Your task to perform on an android device: Turn on the flashlight Image 0: 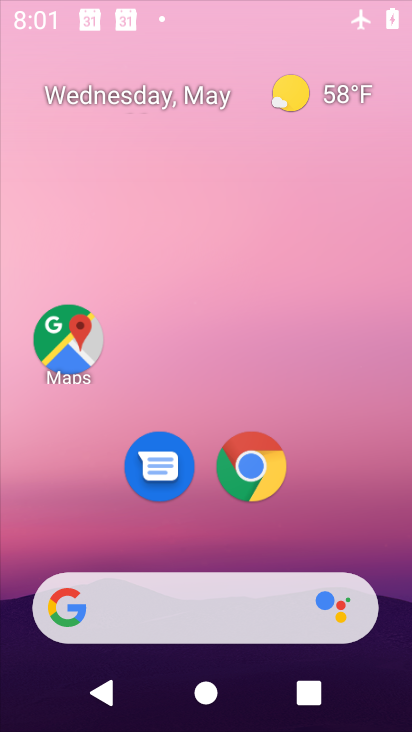
Step 0: press home button
Your task to perform on an android device: Turn on the flashlight Image 1: 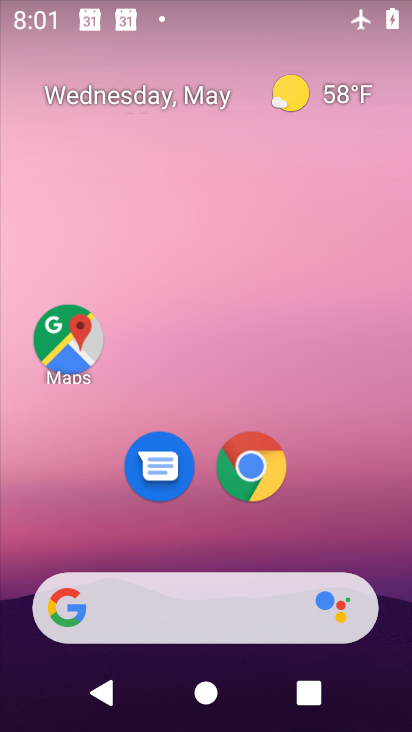
Step 1: drag from (197, 526) to (271, 28)
Your task to perform on an android device: Turn on the flashlight Image 2: 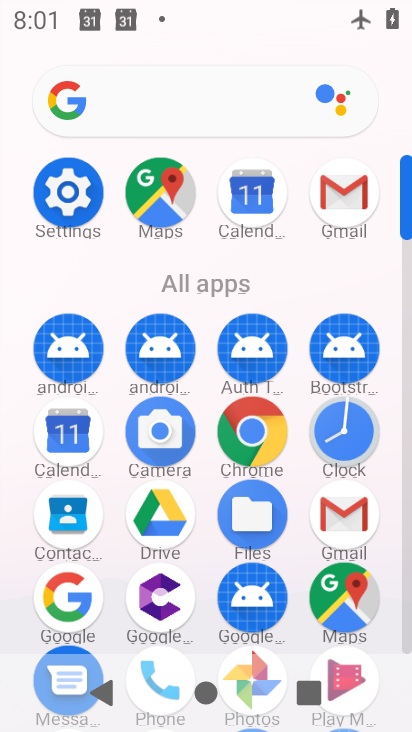
Step 2: click (67, 187)
Your task to perform on an android device: Turn on the flashlight Image 3: 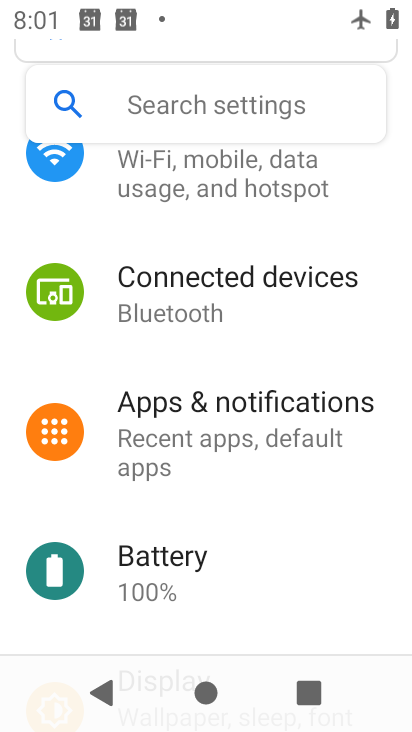
Step 3: click (189, 89)
Your task to perform on an android device: Turn on the flashlight Image 4: 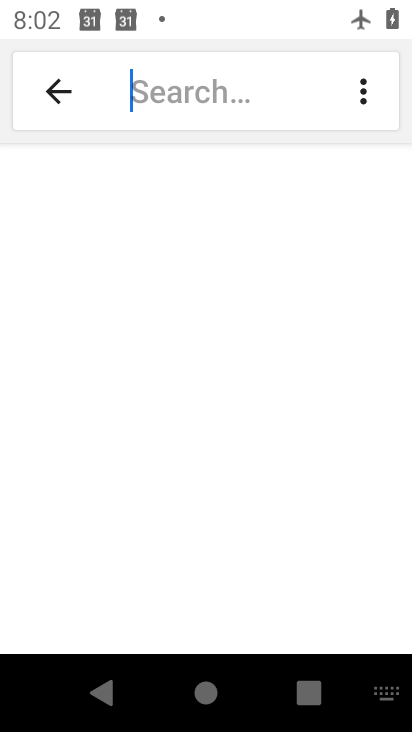
Step 4: type "flashlight"
Your task to perform on an android device: Turn on the flashlight Image 5: 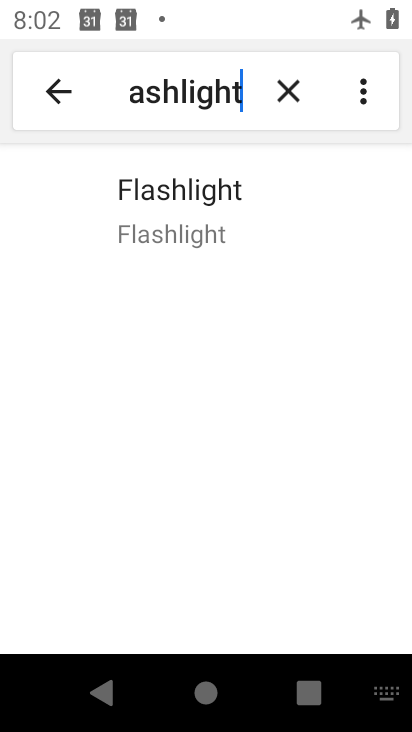
Step 5: click (174, 209)
Your task to perform on an android device: Turn on the flashlight Image 6: 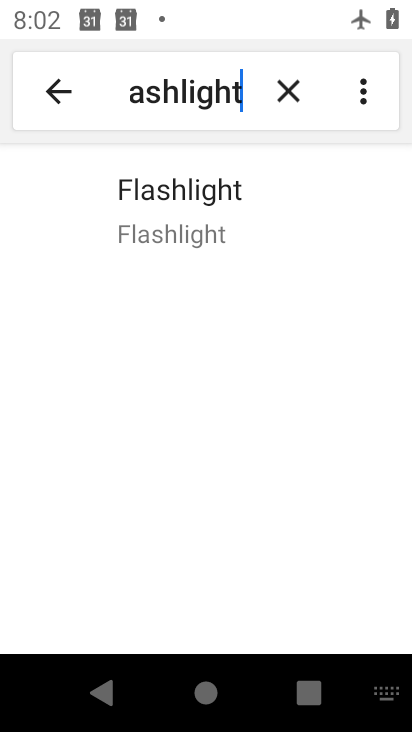
Step 6: click (167, 213)
Your task to perform on an android device: Turn on the flashlight Image 7: 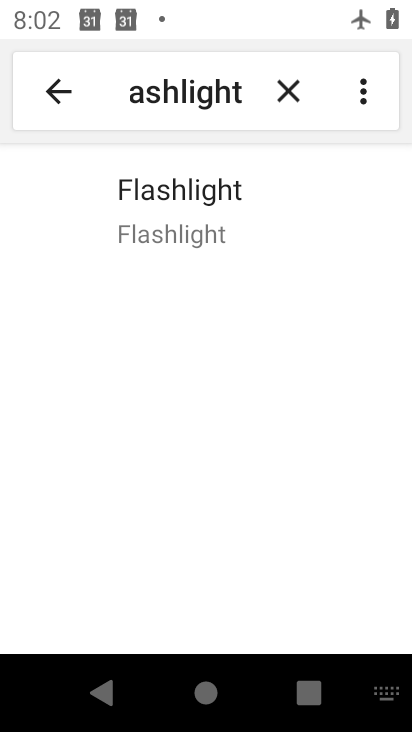
Step 7: task complete